Your task to perform on an android device: Set the phone to "Do not disturb". Image 0: 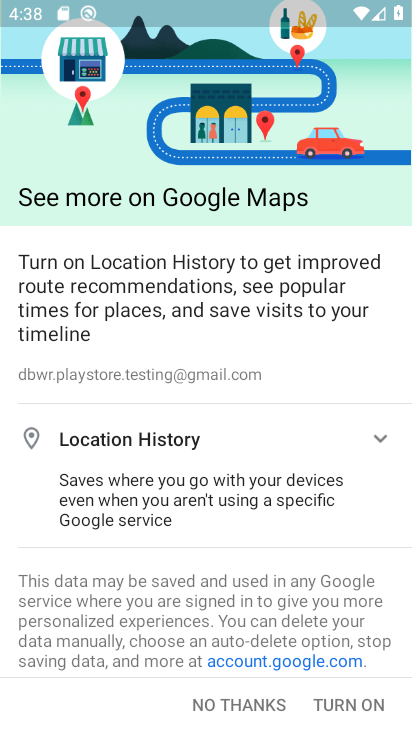
Step 0: press home button
Your task to perform on an android device: Set the phone to "Do not disturb". Image 1: 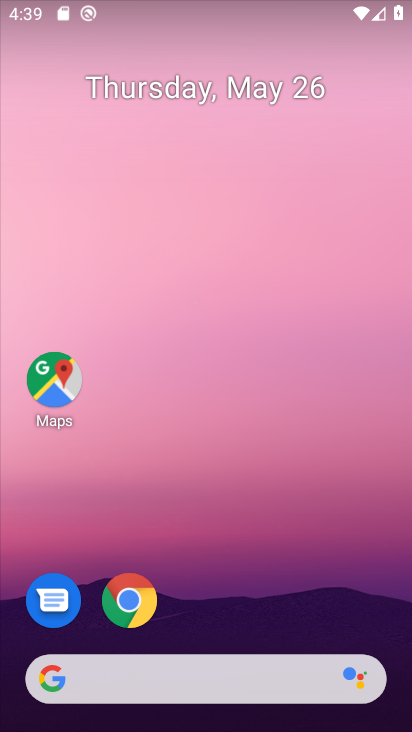
Step 1: drag from (223, 600) to (295, 176)
Your task to perform on an android device: Set the phone to "Do not disturb". Image 2: 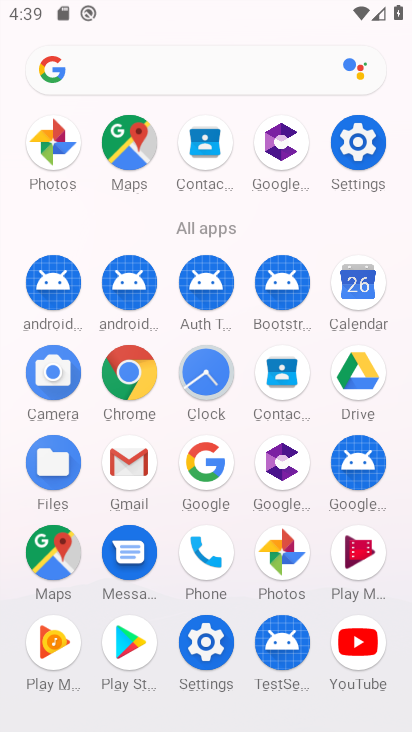
Step 2: click (213, 645)
Your task to perform on an android device: Set the phone to "Do not disturb". Image 3: 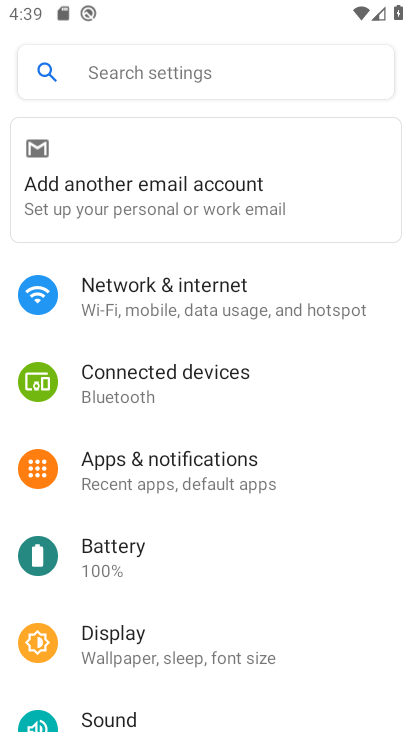
Step 3: drag from (168, 613) to (194, 446)
Your task to perform on an android device: Set the phone to "Do not disturb". Image 4: 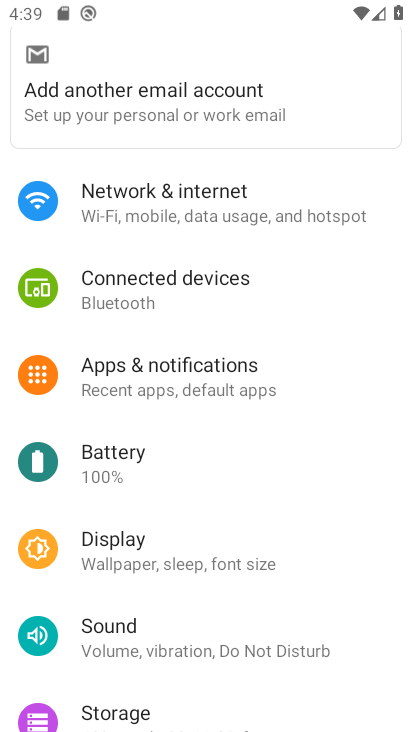
Step 4: click (147, 643)
Your task to perform on an android device: Set the phone to "Do not disturb". Image 5: 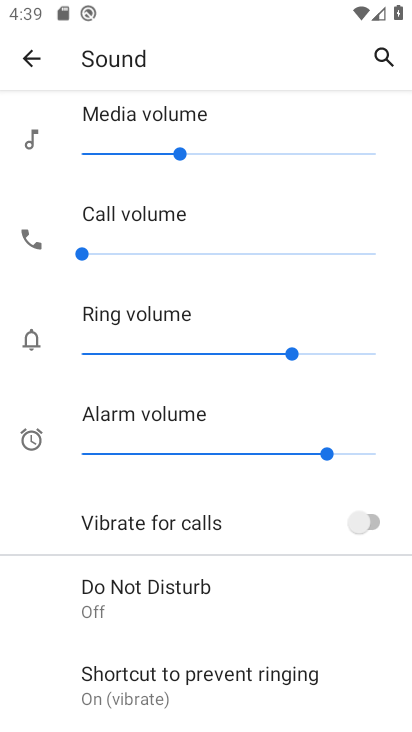
Step 5: click (168, 603)
Your task to perform on an android device: Set the phone to "Do not disturb". Image 6: 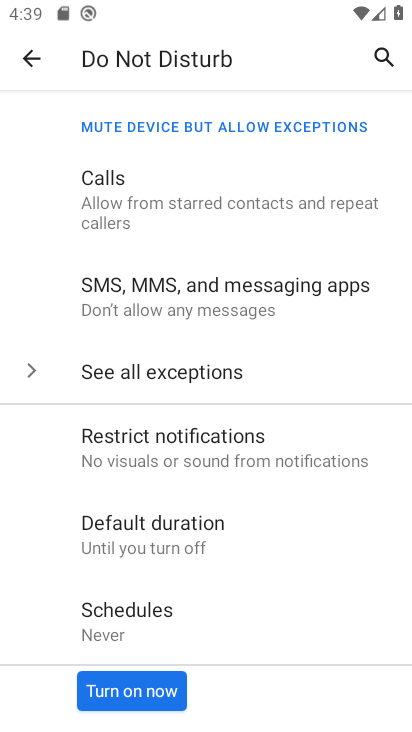
Step 6: click (164, 623)
Your task to perform on an android device: Set the phone to "Do not disturb". Image 7: 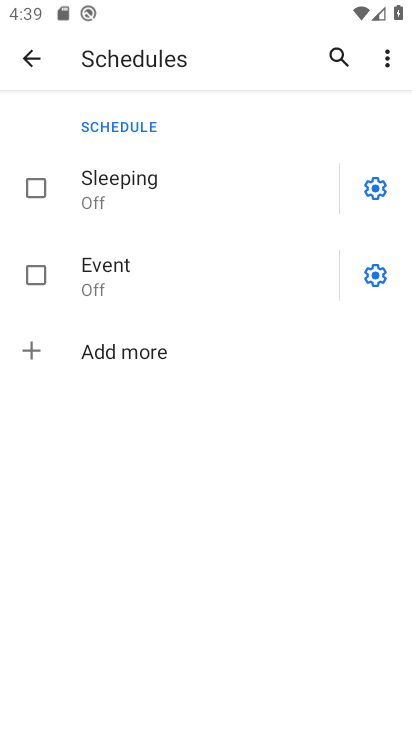
Step 7: click (44, 59)
Your task to perform on an android device: Set the phone to "Do not disturb". Image 8: 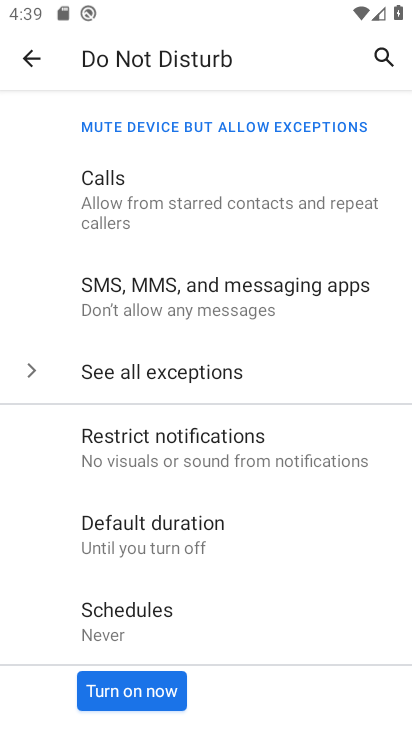
Step 8: click (155, 693)
Your task to perform on an android device: Set the phone to "Do not disturb". Image 9: 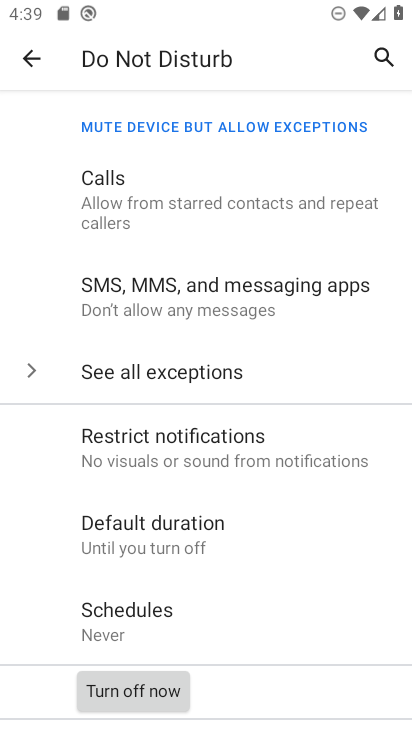
Step 9: task complete